Your task to perform on an android device: turn off airplane mode Image 0: 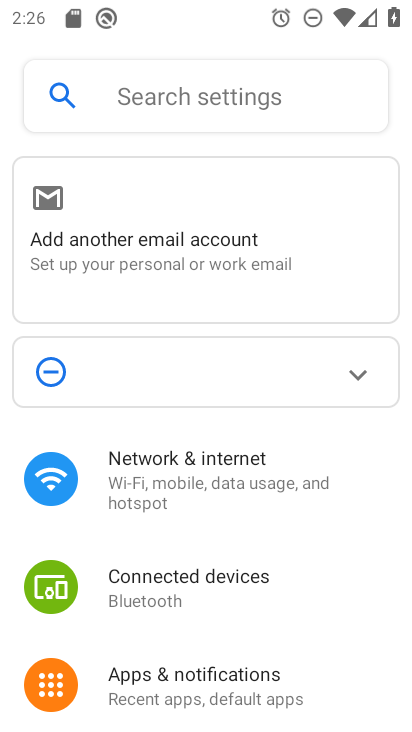
Step 0: press home button
Your task to perform on an android device: turn off airplane mode Image 1: 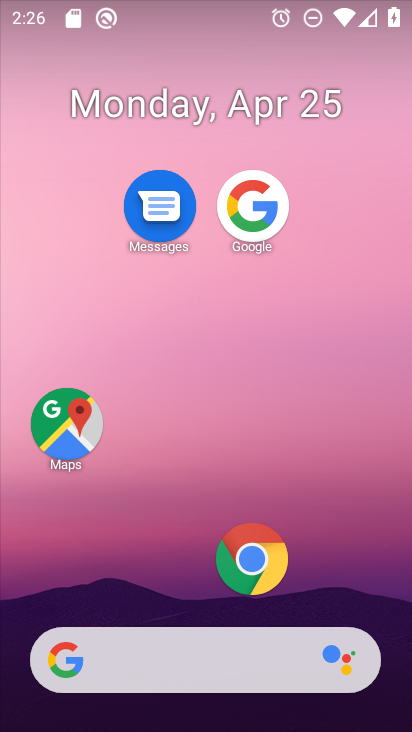
Step 1: drag from (181, 546) to (159, 90)
Your task to perform on an android device: turn off airplane mode Image 2: 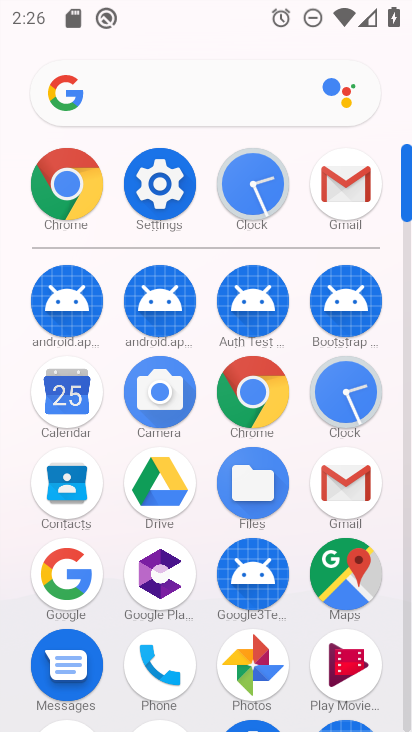
Step 2: click (162, 179)
Your task to perform on an android device: turn off airplane mode Image 3: 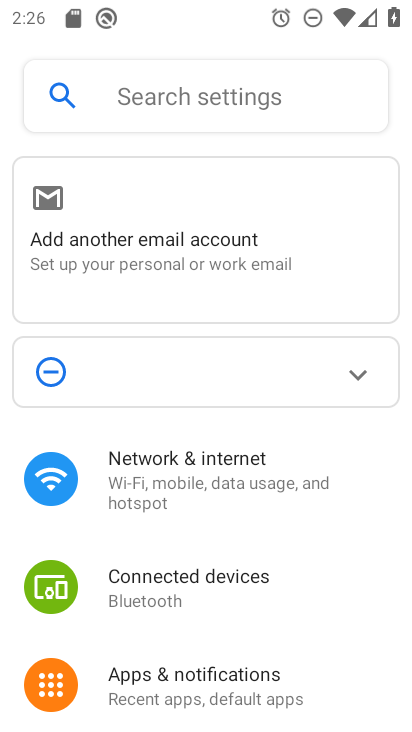
Step 3: click (206, 478)
Your task to perform on an android device: turn off airplane mode Image 4: 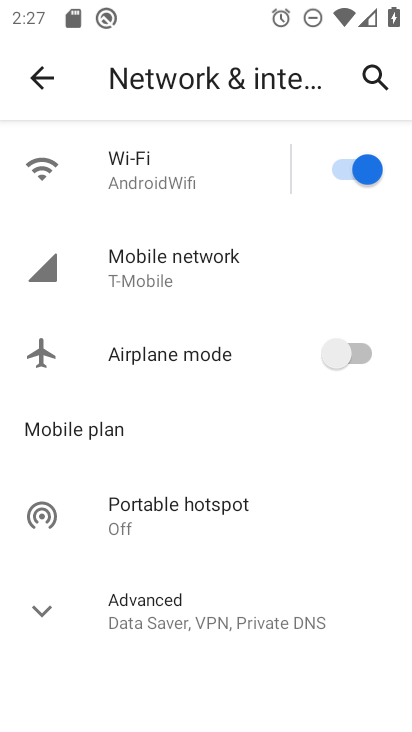
Step 4: task complete